Your task to perform on an android device: check data usage Image 0: 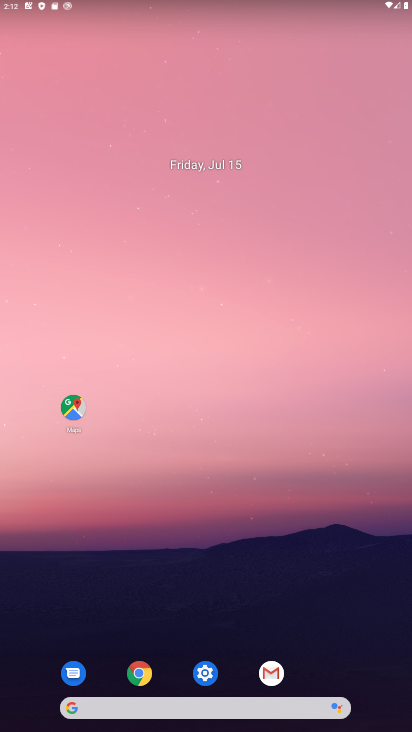
Step 0: click (215, 669)
Your task to perform on an android device: check data usage Image 1: 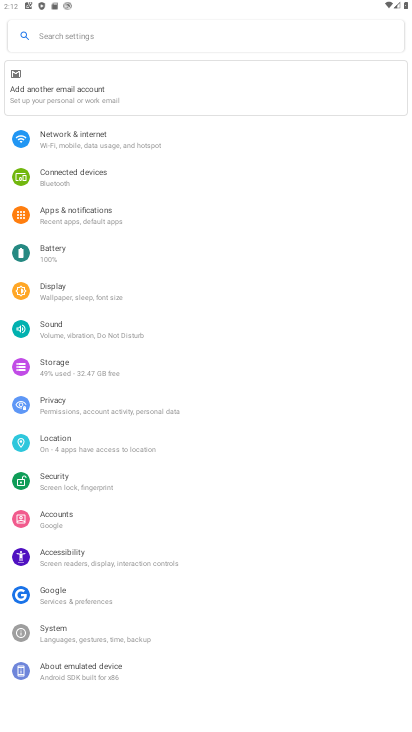
Step 1: click (112, 34)
Your task to perform on an android device: check data usage Image 2: 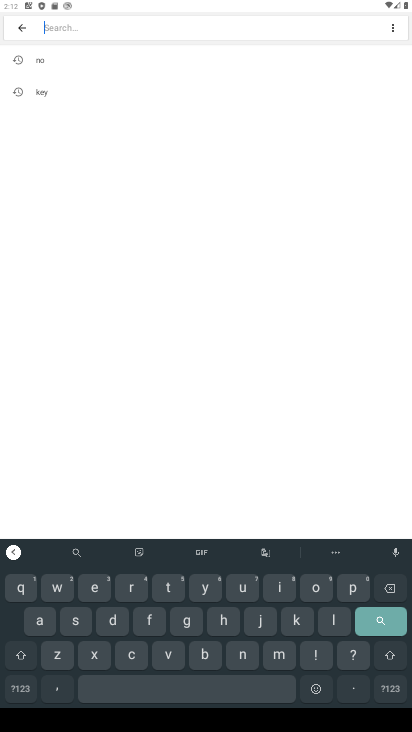
Step 2: click (116, 615)
Your task to perform on an android device: check data usage Image 3: 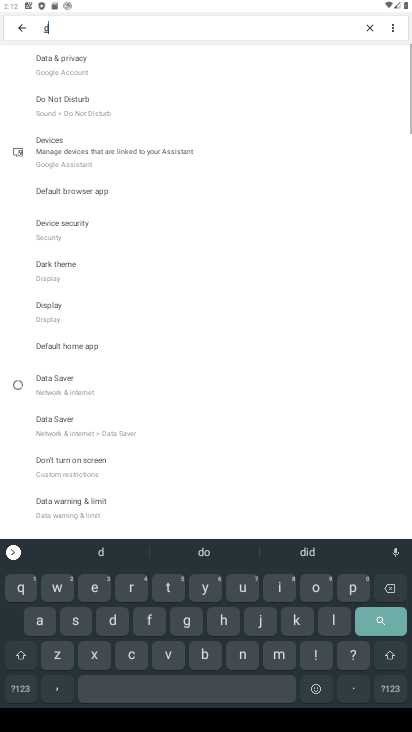
Step 3: click (41, 620)
Your task to perform on an android device: check data usage Image 4: 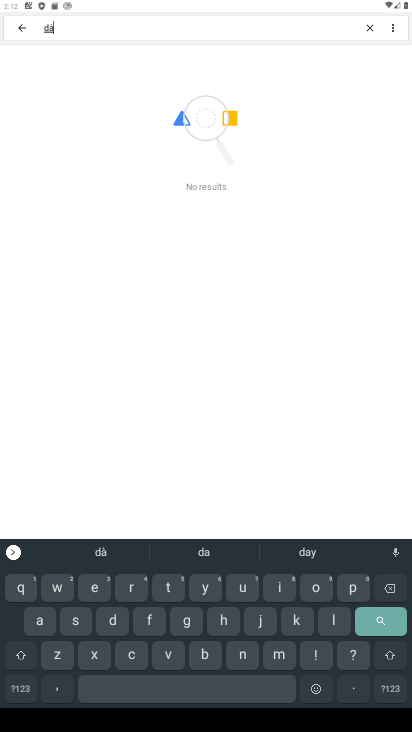
Step 4: click (168, 589)
Your task to perform on an android device: check data usage Image 5: 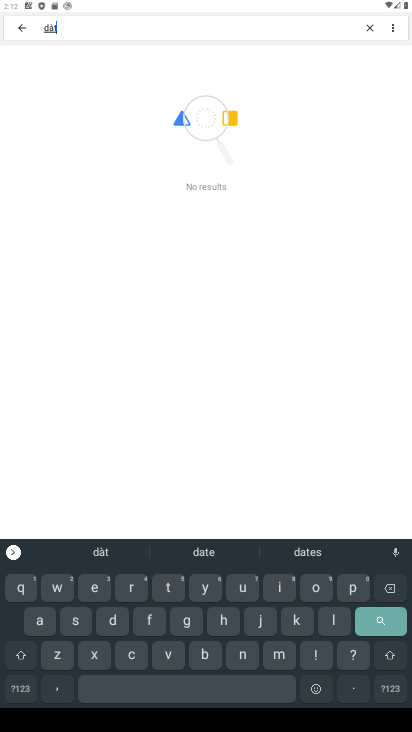
Step 5: click (39, 623)
Your task to perform on an android device: check data usage Image 6: 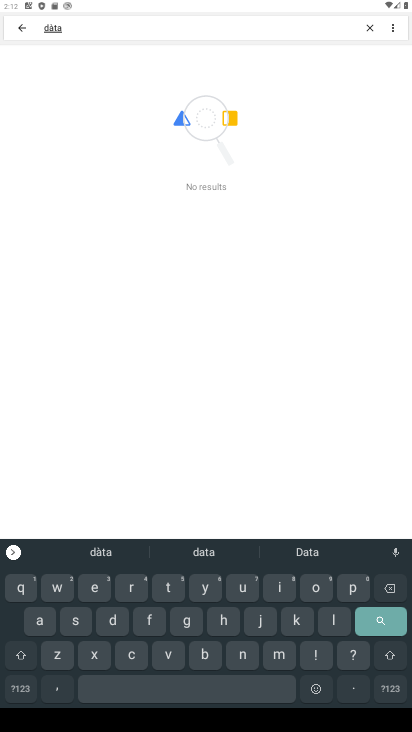
Step 6: click (169, 698)
Your task to perform on an android device: check data usage Image 7: 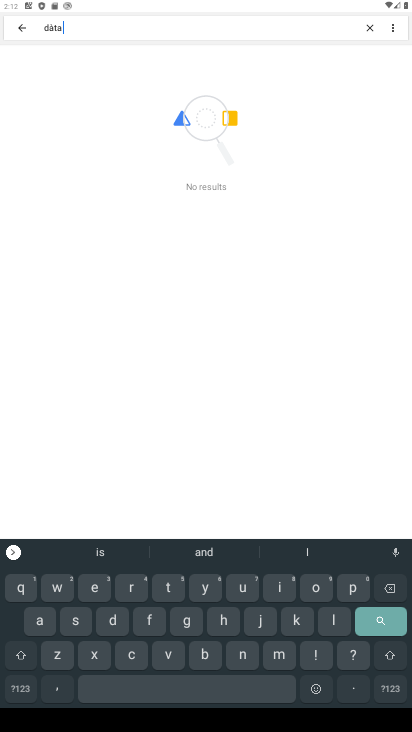
Step 7: click (247, 588)
Your task to perform on an android device: check data usage Image 8: 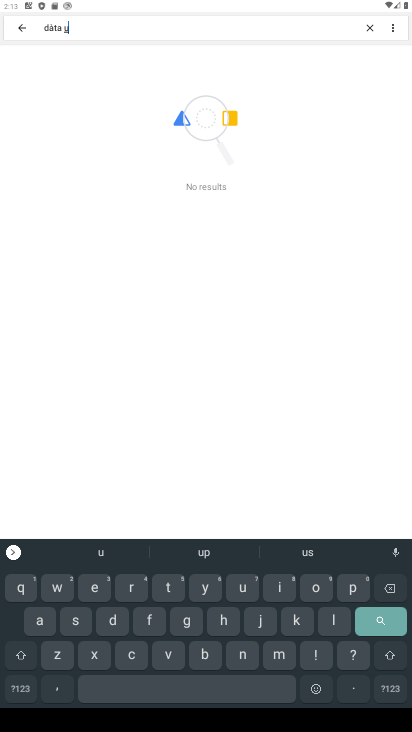
Step 8: click (372, 30)
Your task to perform on an android device: check data usage Image 9: 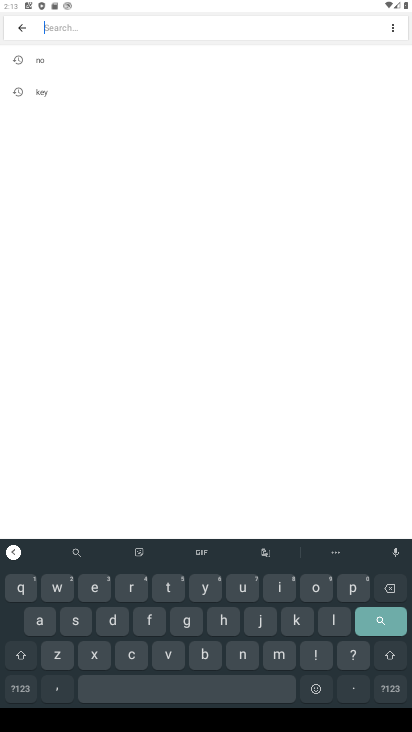
Step 9: click (116, 625)
Your task to perform on an android device: check data usage Image 10: 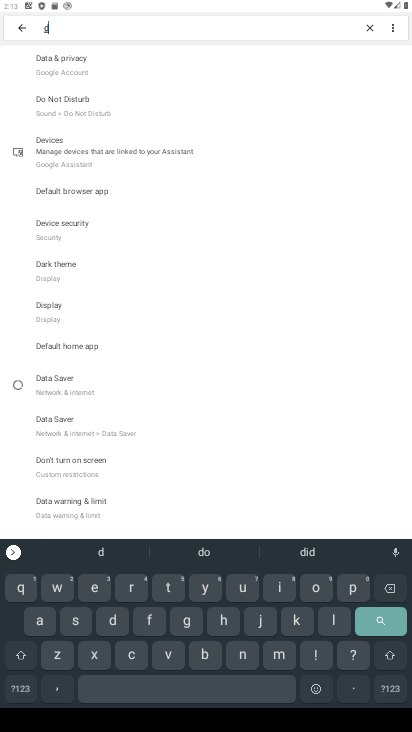
Step 10: click (41, 624)
Your task to perform on an android device: check data usage Image 11: 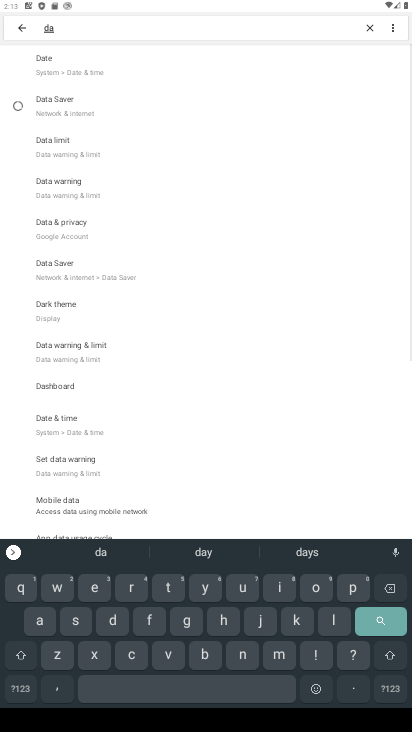
Step 11: click (170, 587)
Your task to perform on an android device: check data usage Image 12: 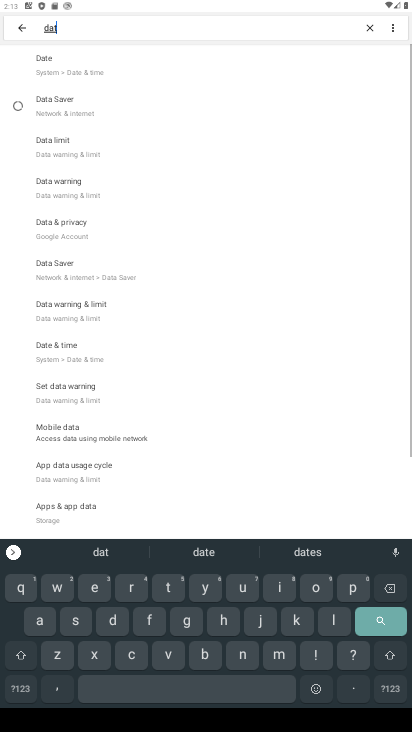
Step 12: click (38, 626)
Your task to perform on an android device: check data usage Image 13: 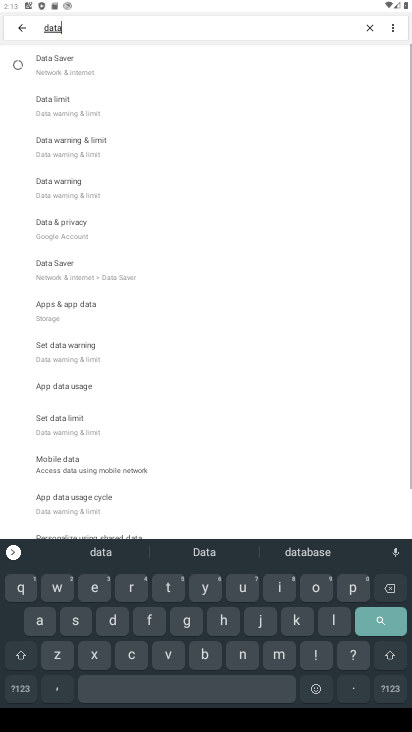
Step 13: click (174, 691)
Your task to perform on an android device: check data usage Image 14: 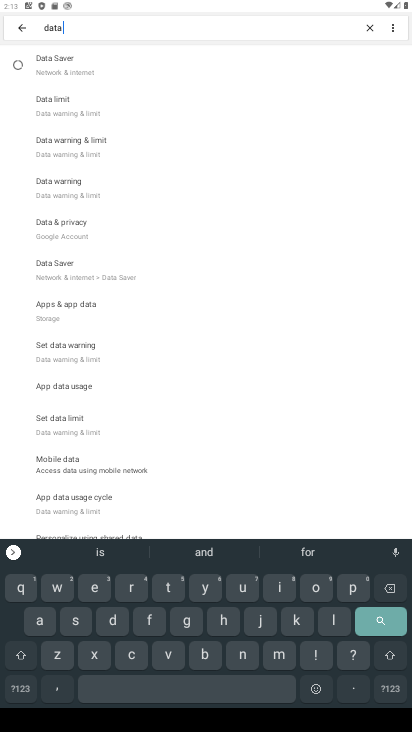
Step 14: click (238, 588)
Your task to perform on an android device: check data usage Image 15: 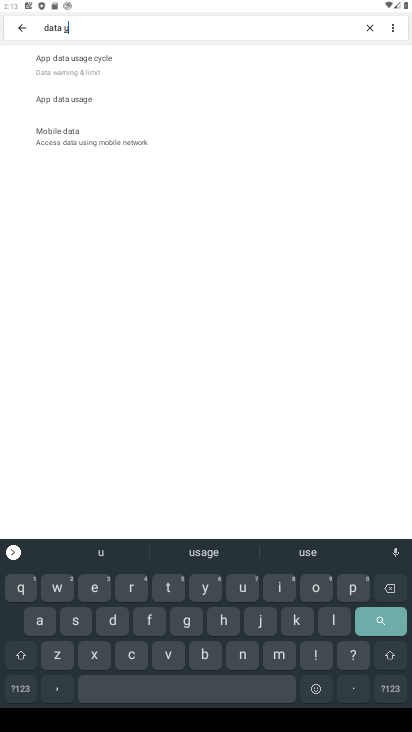
Step 15: click (84, 92)
Your task to perform on an android device: check data usage Image 16: 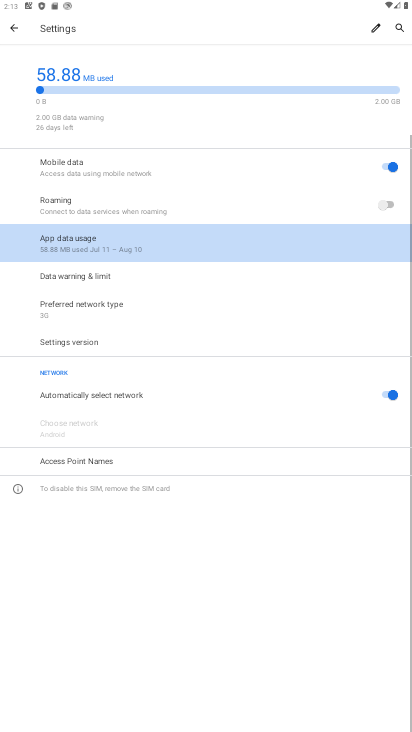
Step 16: click (89, 91)
Your task to perform on an android device: check data usage Image 17: 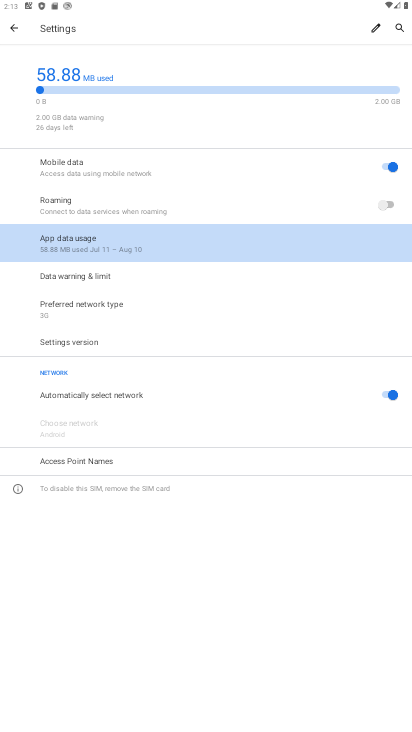
Step 17: click (53, 234)
Your task to perform on an android device: check data usage Image 18: 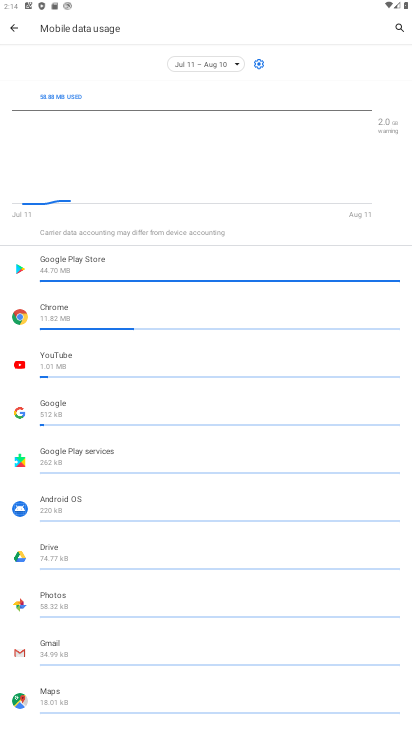
Step 18: task complete